Your task to perform on an android device: move a message to another label in the gmail app Image 0: 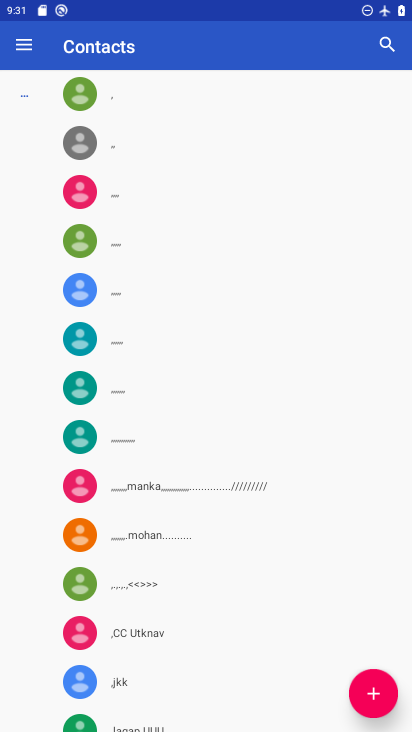
Step 0: press home button
Your task to perform on an android device: move a message to another label in the gmail app Image 1: 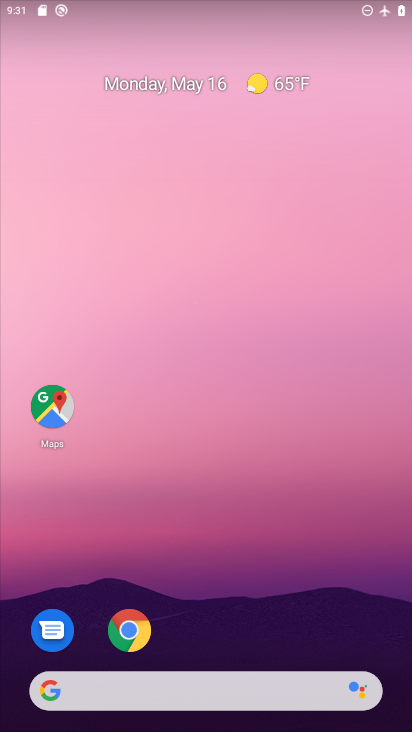
Step 1: drag from (198, 626) to (187, 253)
Your task to perform on an android device: move a message to another label in the gmail app Image 2: 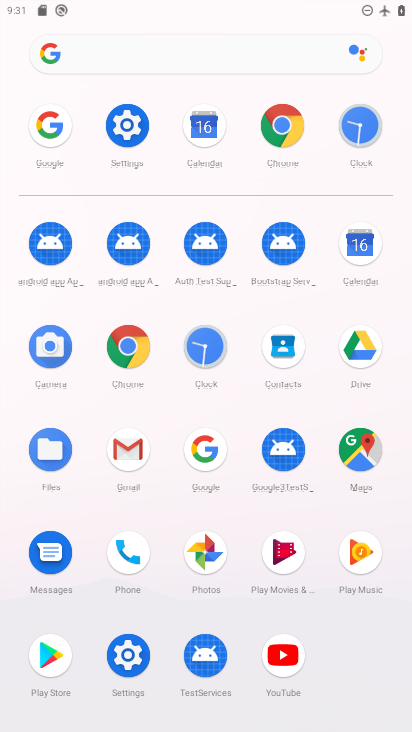
Step 2: click (135, 444)
Your task to perform on an android device: move a message to another label in the gmail app Image 3: 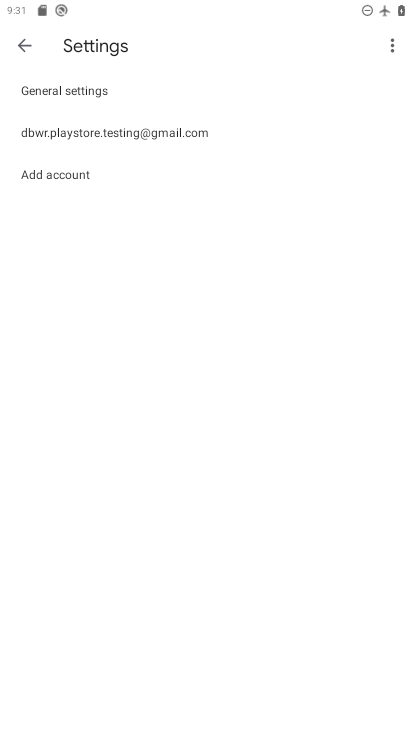
Step 3: click (20, 33)
Your task to perform on an android device: move a message to another label in the gmail app Image 4: 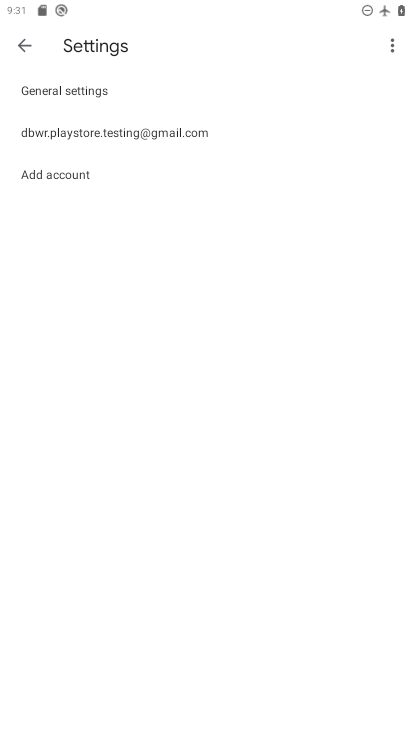
Step 4: click (20, 33)
Your task to perform on an android device: move a message to another label in the gmail app Image 5: 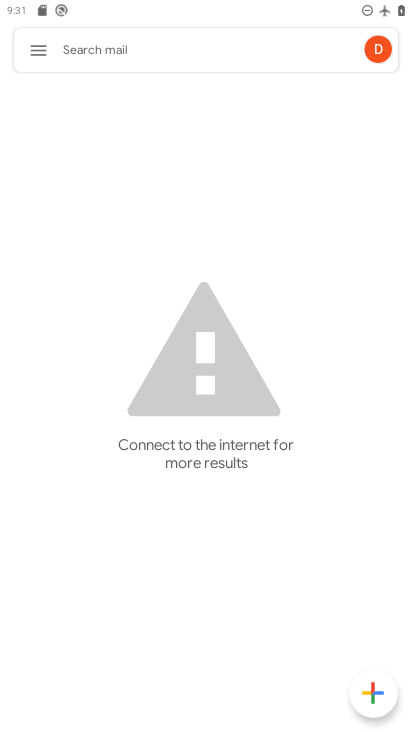
Step 5: click (34, 46)
Your task to perform on an android device: move a message to another label in the gmail app Image 6: 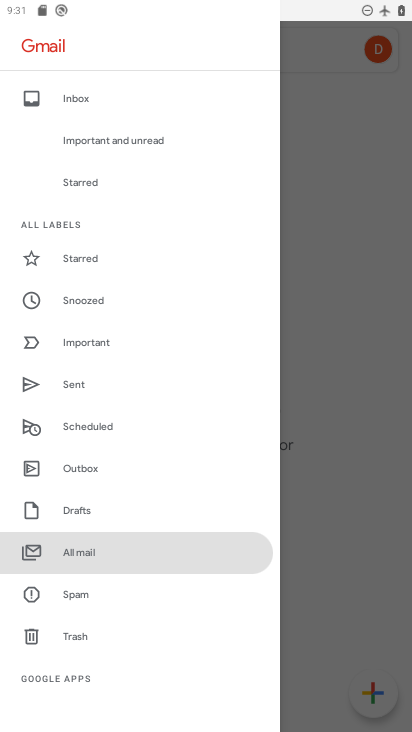
Step 6: click (99, 96)
Your task to perform on an android device: move a message to another label in the gmail app Image 7: 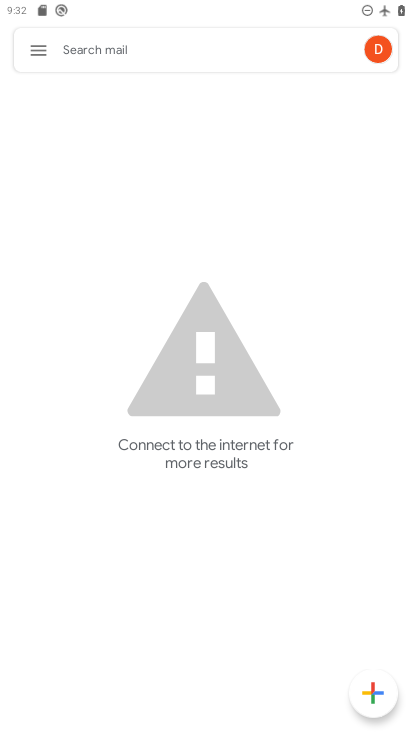
Step 7: task complete